Your task to perform on an android device: Go to location settings Image 0: 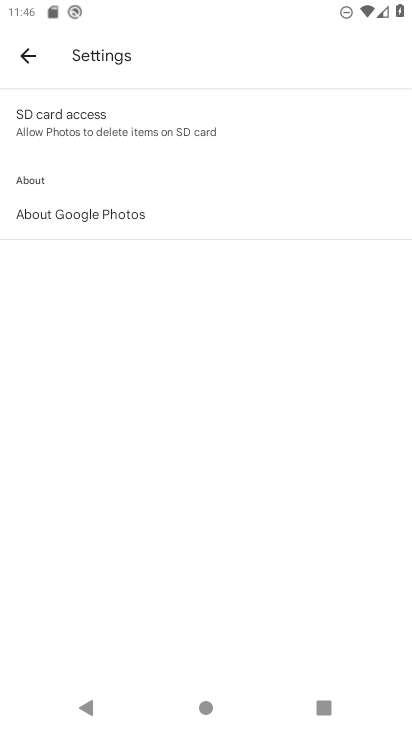
Step 0: press home button
Your task to perform on an android device: Go to location settings Image 1: 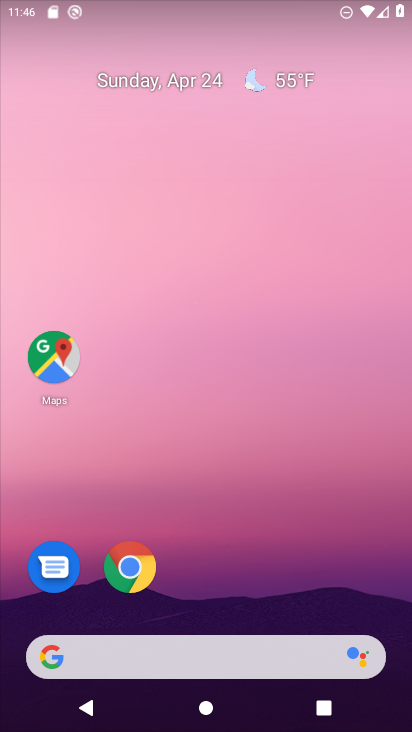
Step 1: drag from (396, 636) to (340, 168)
Your task to perform on an android device: Go to location settings Image 2: 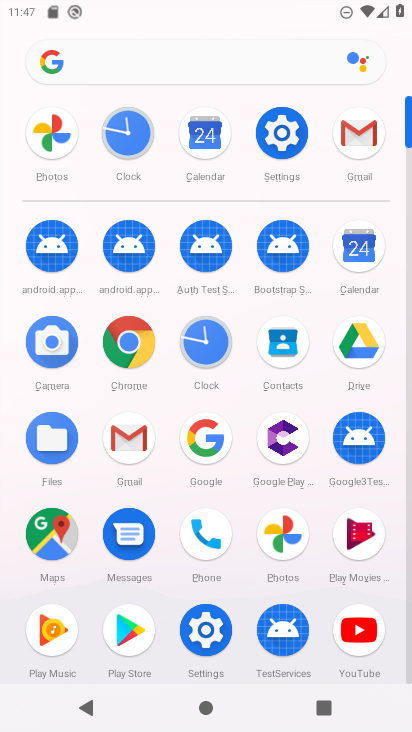
Step 2: click (283, 137)
Your task to perform on an android device: Go to location settings Image 3: 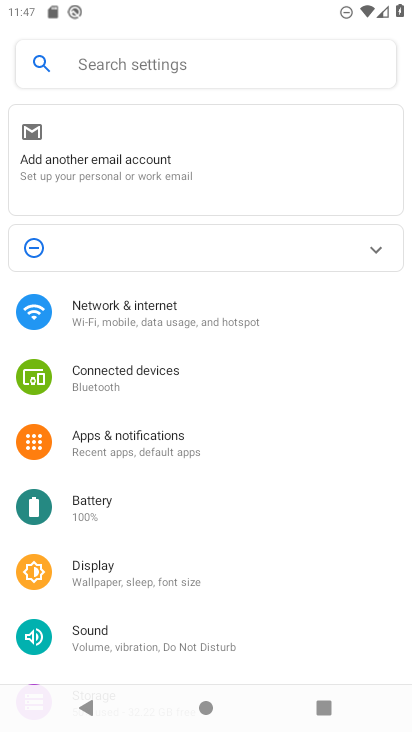
Step 3: drag from (310, 639) to (260, 301)
Your task to perform on an android device: Go to location settings Image 4: 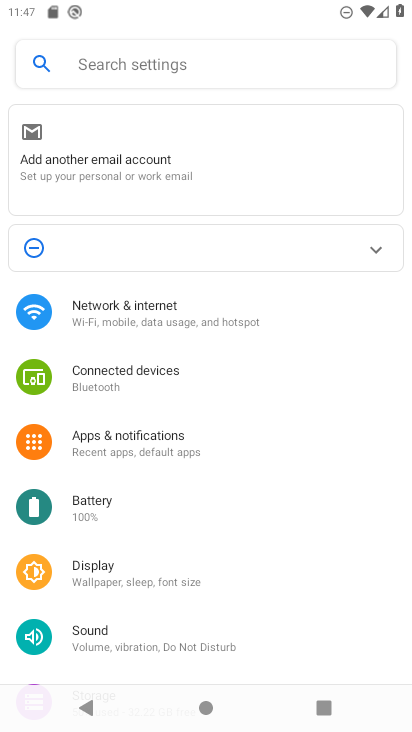
Step 4: drag from (296, 639) to (258, 233)
Your task to perform on an android device: Go to location settings Image 5: 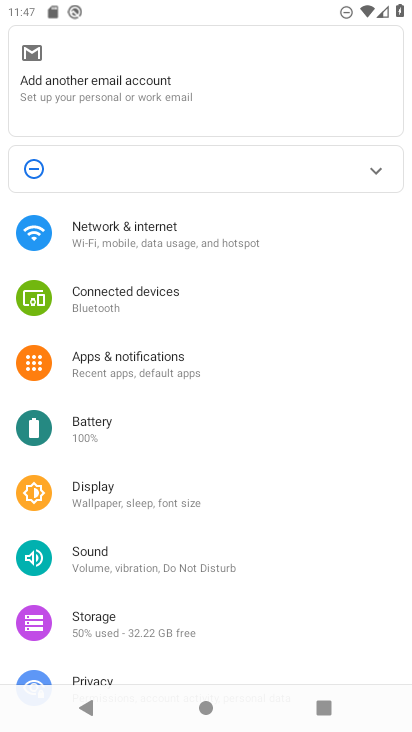
Step 5: drag from (294, 643) to (252, 235)
Your task to perform on an android device: Go to location settings Image 6: 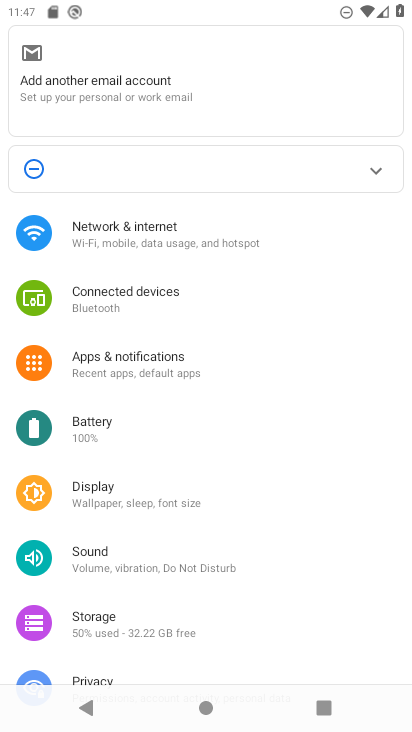
Step 6: drag from (273, 284) to (265, 212)
Your task to perform on an android device: Go to location settings Image 7: 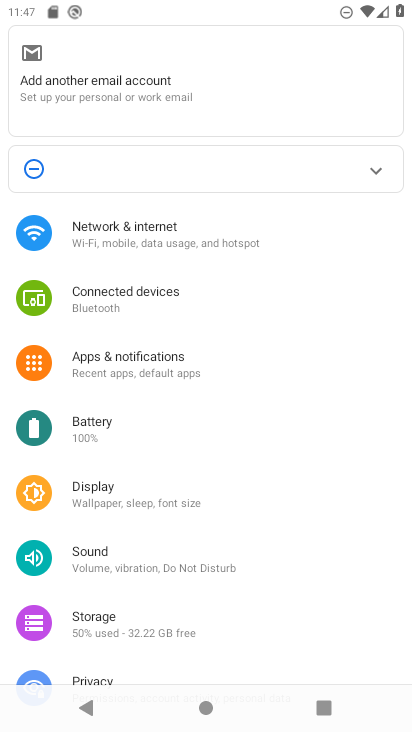
Step 7: drag from (349, 610) to (320, 224)
Your task to perform on an android device: Go to location settings Image 8: 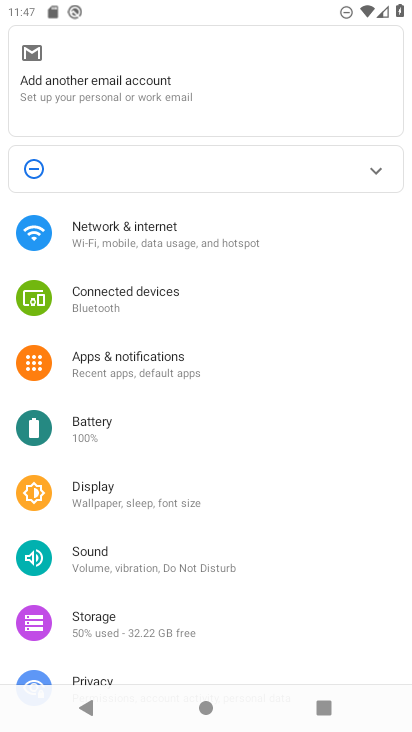
Step 8: drag from (312, 384) to (291, 198)
Your task to perform on an android device: Go to location settings Image 9: 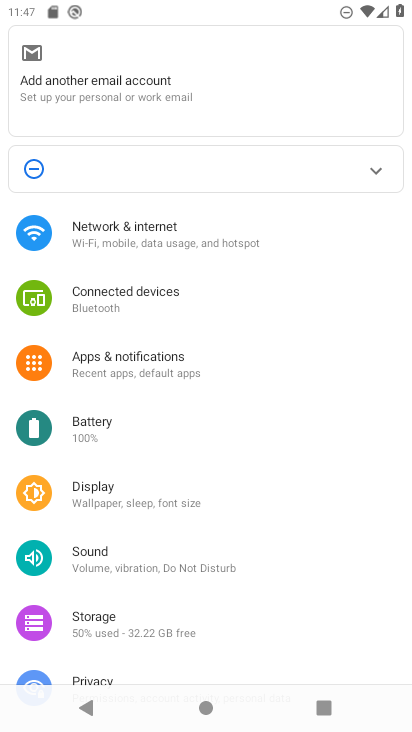
Step 9: drag from (305, 649) to (273, 138)
Your task to perform on an android device: Go to location settings Image 10: 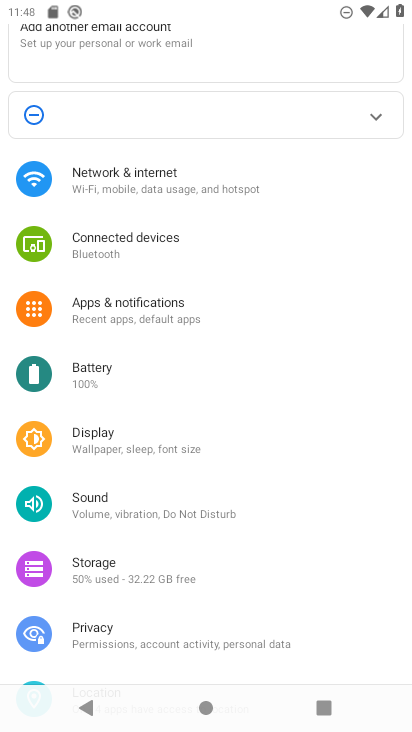
Step 10: drag from (335, 445) to (313, 156)
Your task to perform on an android device: Go to location settings Image 11: 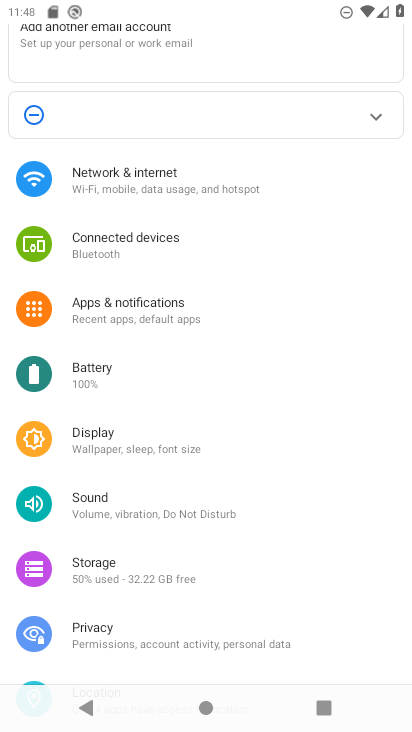
Step 11: drag from (339, 641) to (285, 264)
Your task to perform on an android device: Go to location settings Image 12: 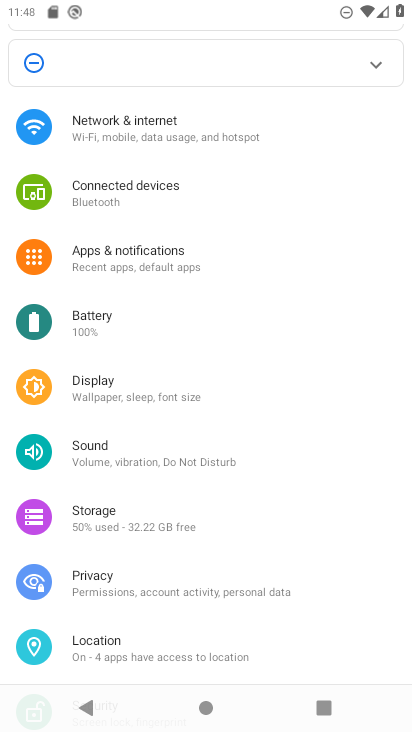
Step 12: click (111, 647)
Your task to perform on an android device: Go to location settings Image 13: 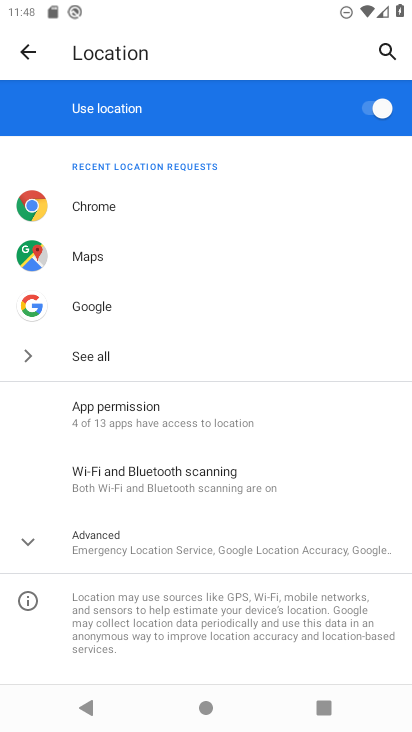
Step 13: click (37, 539)
Your task to perform on an android device: Go to location settings Image 14: 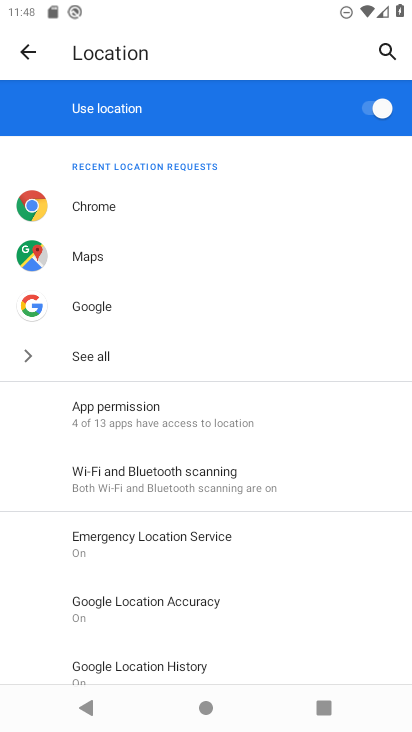
Step 14: task complete